Your task to perform on an android device: What's on my calendar tomorrow? Image 0: 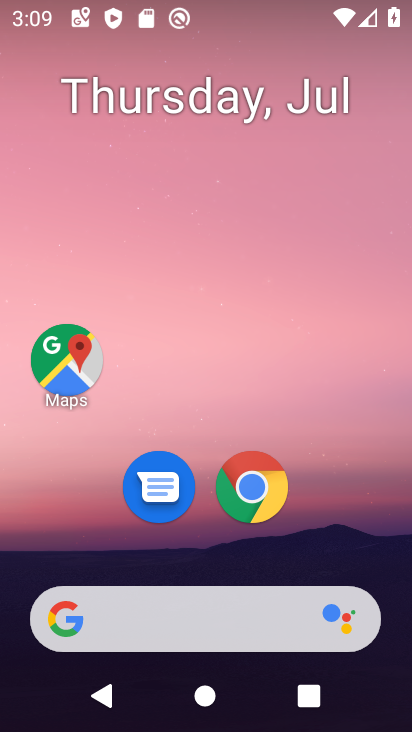
Step 0: drag from (196, 517) to (259, 44)
Your task to perform on an android device: What's on my calendar tomorrow? Image 1: 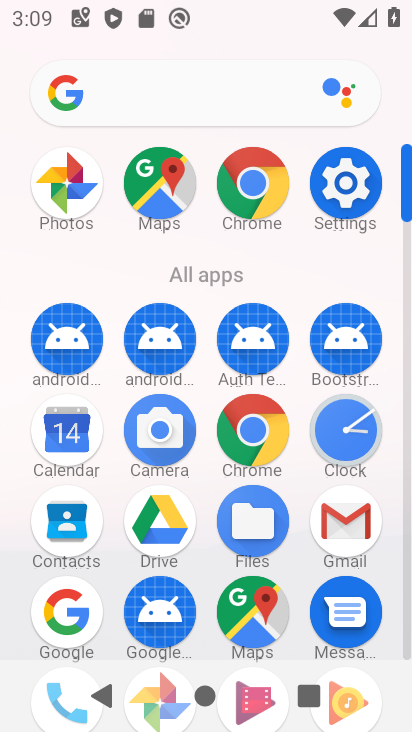
Step 1: click (70, 434)
Your task to perform on an android device: What's on my calendar tomorrow? Image 2: 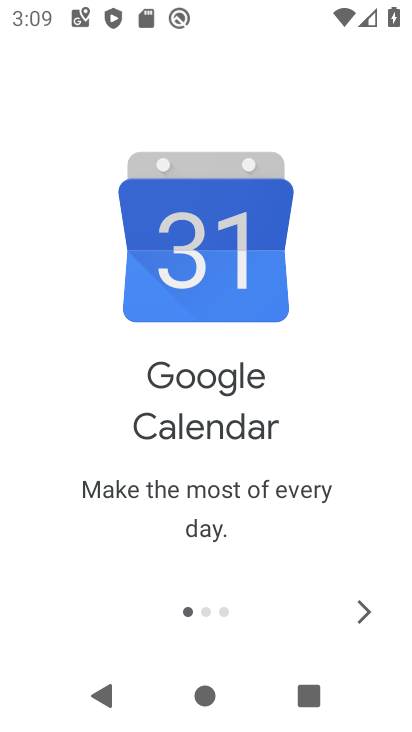
Step 2: click (353, 602)
Your task to perform on an android device: What's on my calendar tomorrow? Image 3: 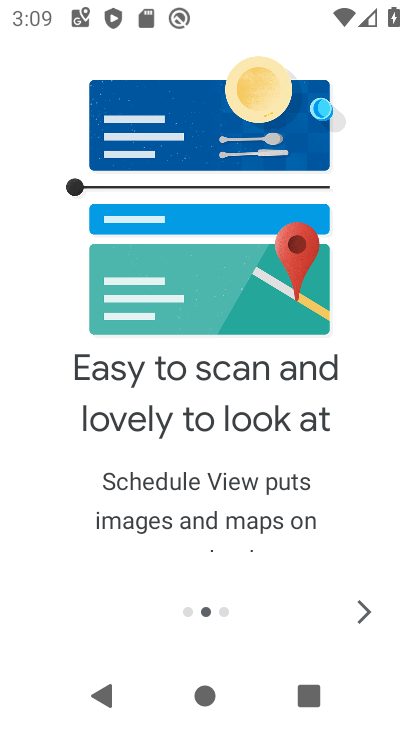
Step 3: click (366, 598)
Your task to perform on an android device: What's on my calendar tomorrow? Image 4: 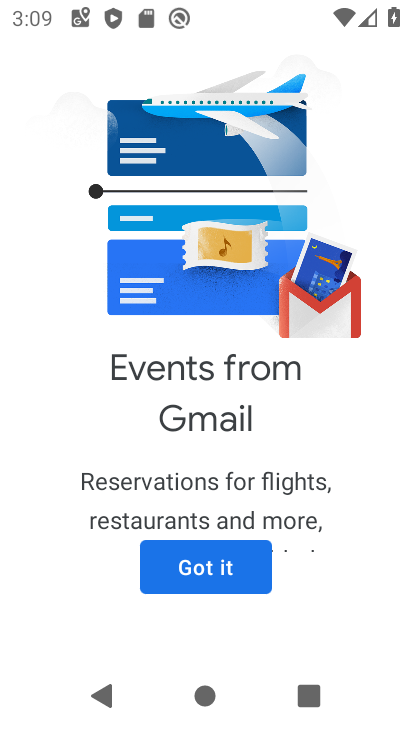
Step 4: click (201, 577)
Your task to perform on an android device: What's on my calendar tomorrow? Image 5: 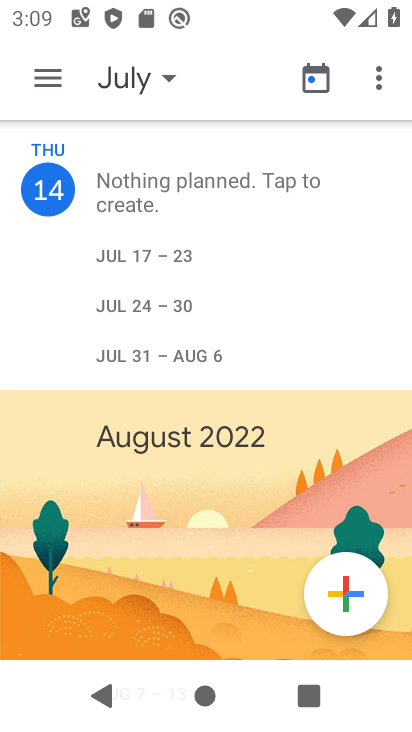
Step 5: task complete